Your task to perform on an android device: check out phone information Image 0: 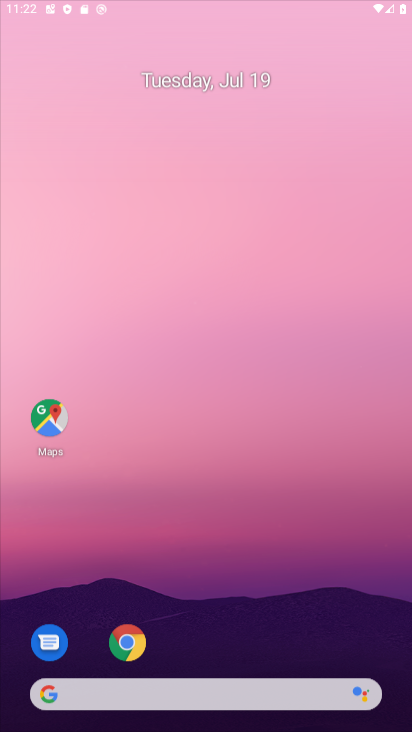
Step 0: press home button
Your task to perform on an android device: check out phone information Image 1: 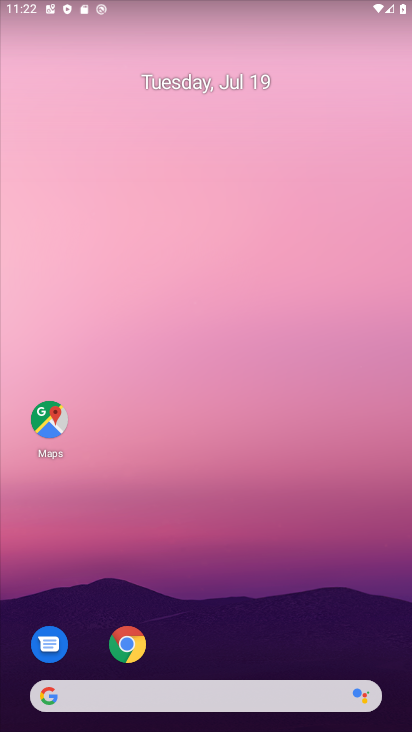
Step 1: drag from (203, 647) to (193, 58)
Your task to perform on an android device: check out phone information Image 2: 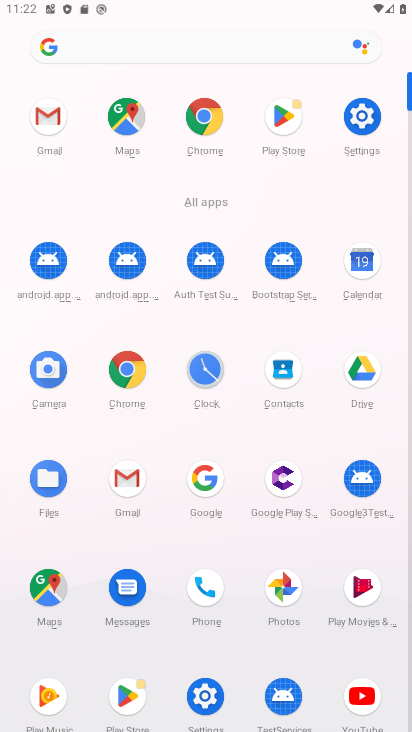
Step 2: click (214, 614)
Your task to perform on an android device: check out phone information Image 3: 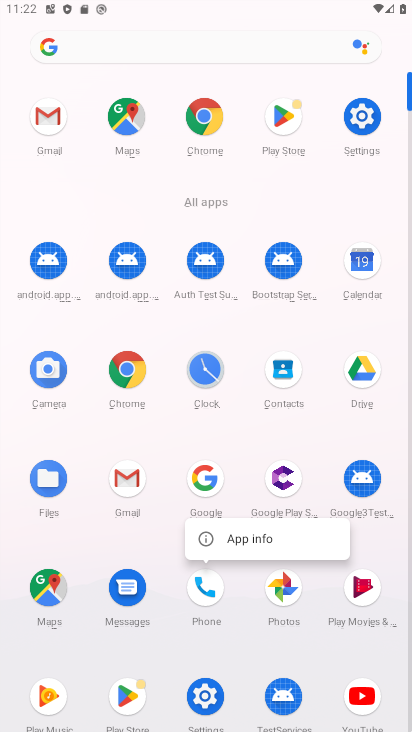
Step 3: click (230, 542)
Your task to perform on an android device: check out phone information Image 4: 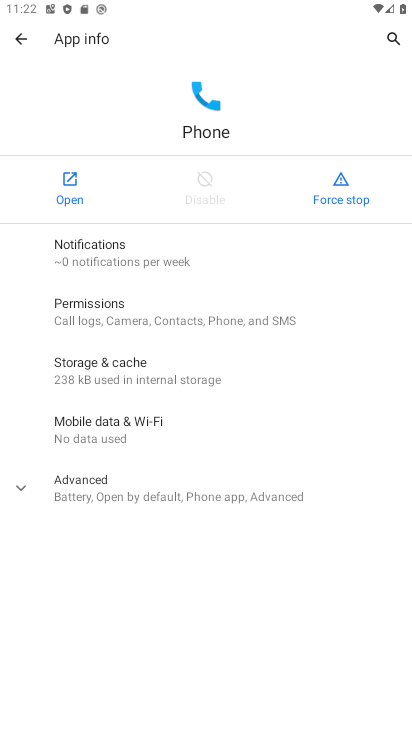
Step 4: task complete